Your task to perform on an android device: Open Yahoo.com Image 0: 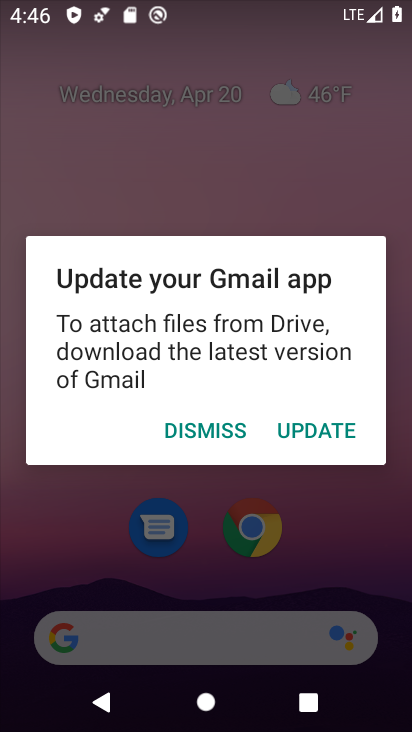
Step 0: press home button
Your task to perform on an android device: Open Yahoo.com Image 1: 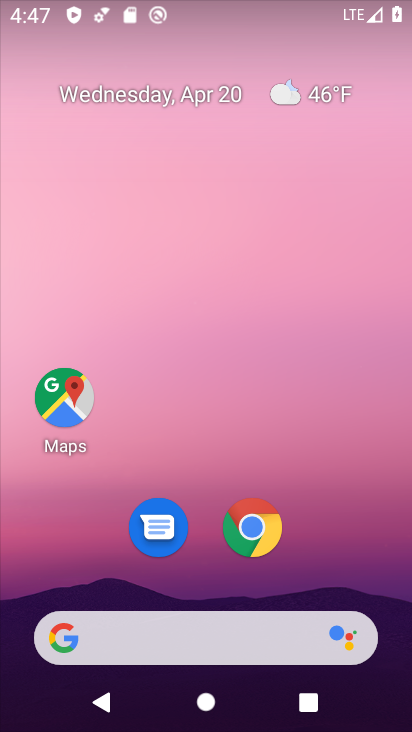
Step 1: click (260, 532)
Your task to perform on an android device: Open Yahoo.com Image 2: 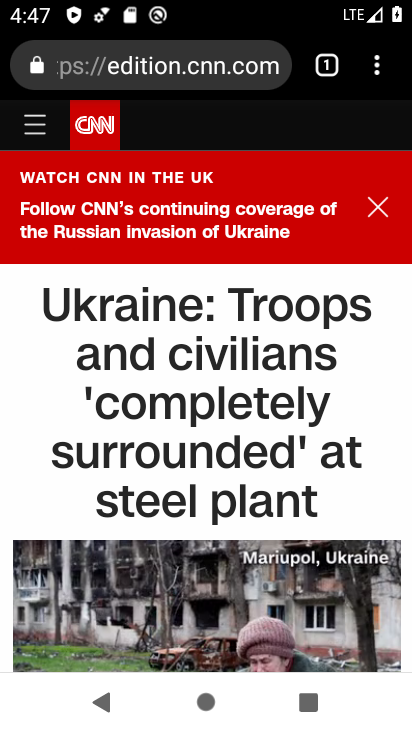
Step 2: click (323, 65)
Your task to perform on an android device: Open Yahoo.com Image 3: 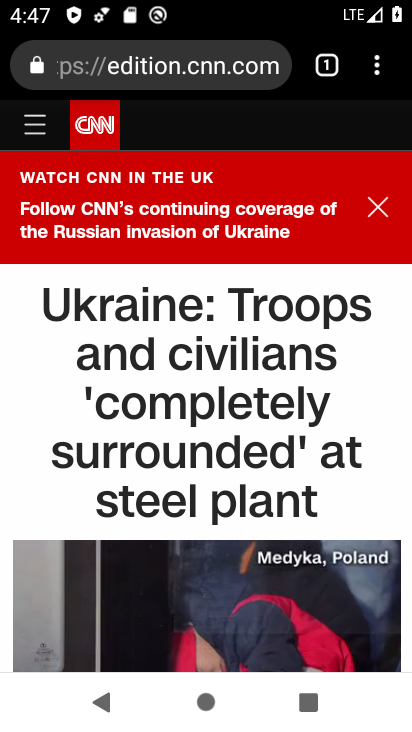
Step 3: click (329, 70)
Your task to perform on an android device: Open Yahoo.com Image 4: 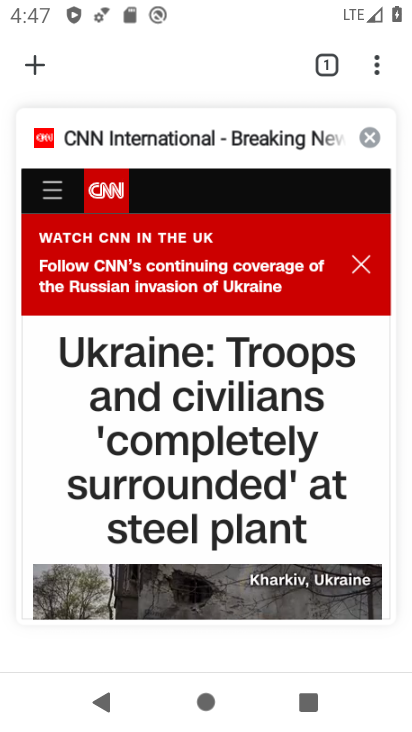
Step 4: click (31, 56)
Your task to perform on an android device: Open Yahoo.com Image 5: 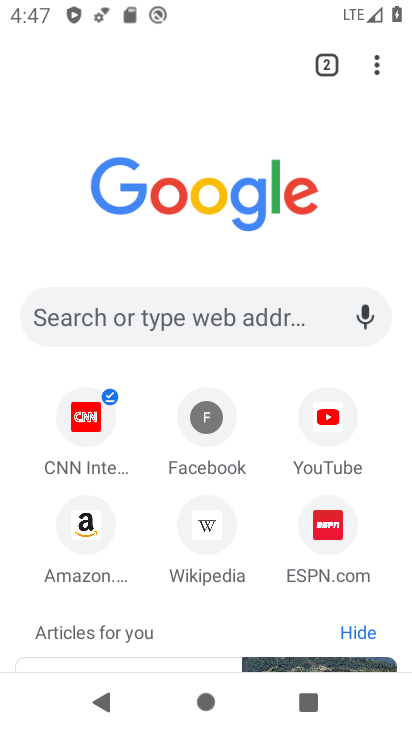
Step 5: click (220, 308)
Your task to perform on an android device: Open Yahoo.com Image 6: 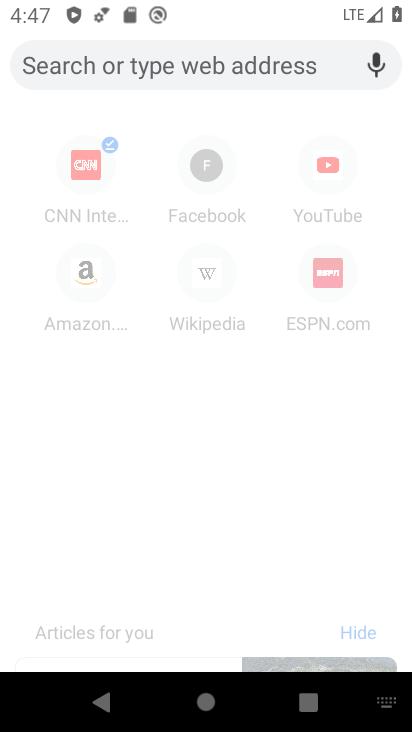
Step 6: type "yahoo"
Your task to perform on an android device: Open Yahoo.com Image 7: 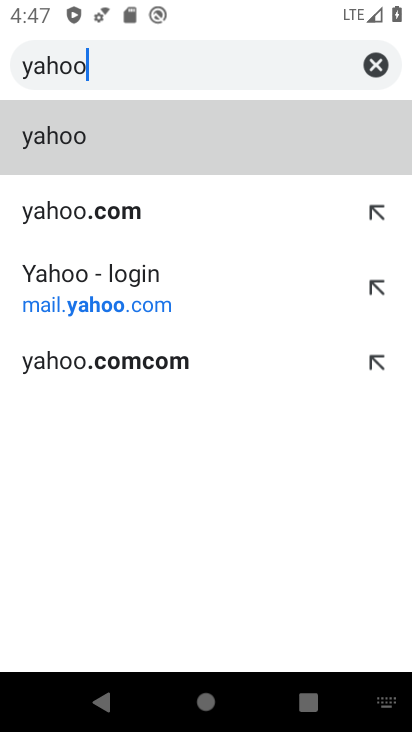
Step 7: click (250, 205)
Your task to perform on an android device: Open Yahoo.com Image 8: 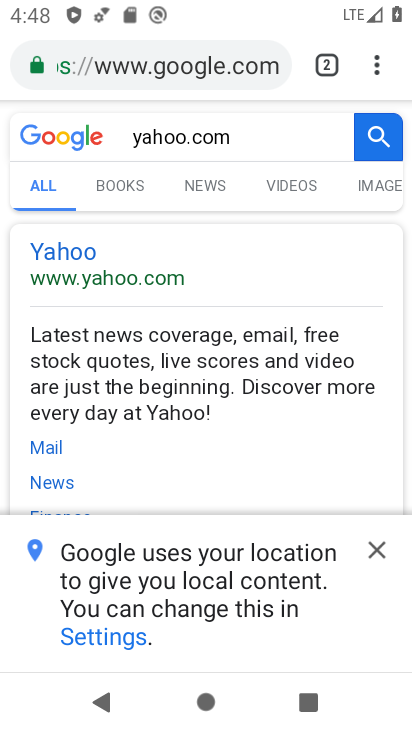
Step 8: task complete